Your task to perform on an android device: turn off wifi Image 0: 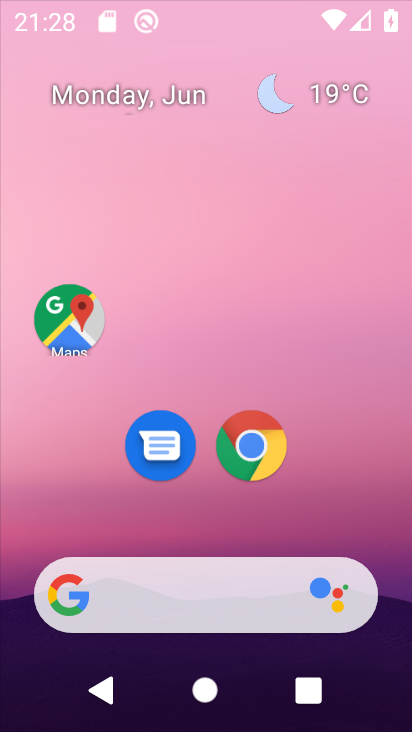
Step 0: press home button
Your task to perform on an android device: turn off wifi Image 1: 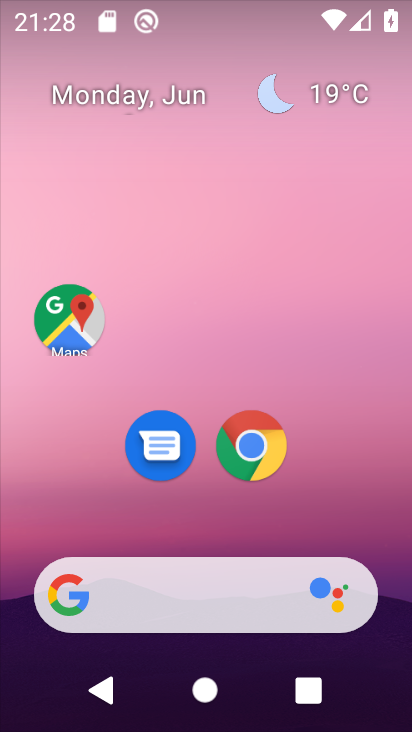
Step 1: drag from (209, 14) to (247, 393)
Your task to perform on an android device: turn off wifi Image 2: 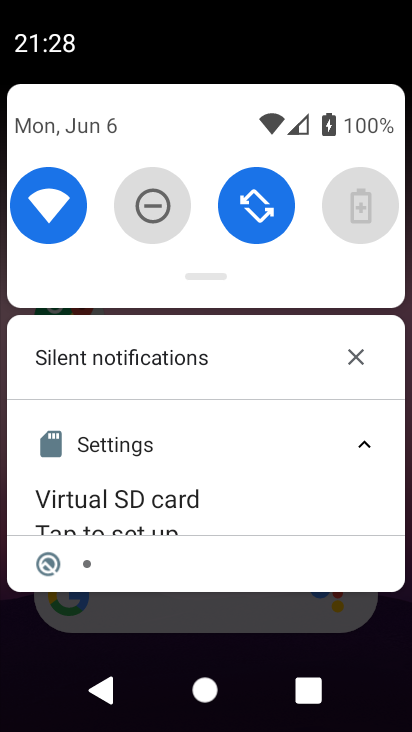
Step 2: click (40, 205)
Your task to perform on an android device: turn off wifi Image 3: 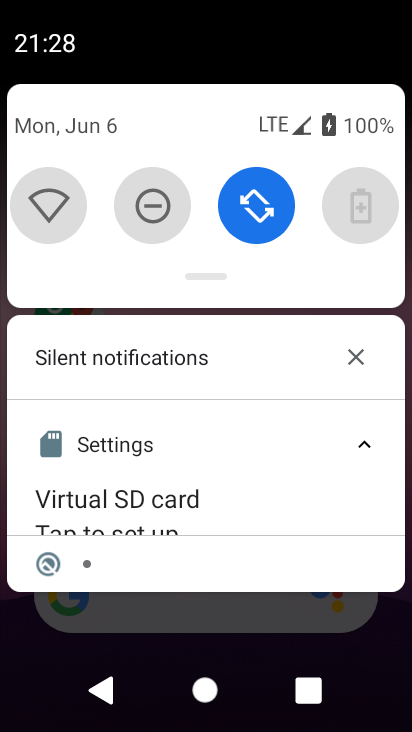
Step 3: task complete